Your task to perform on an android device: star an email in the gmail app Image 0: 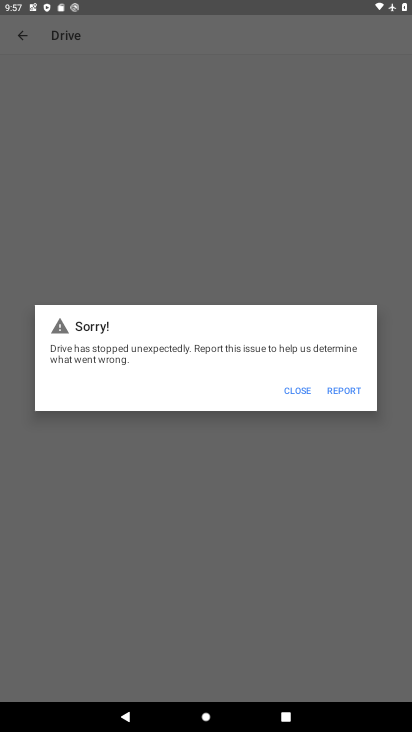
Step 0: press home button
Your task to perform on an android device: star an email in the gmail app Image 1: 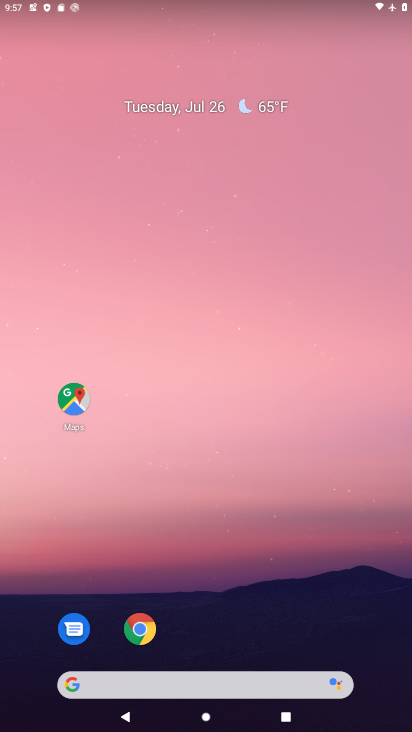
Step 1: drag from (309, 597) to (291, 58)
Your task to perform on an android device: star an email in the gmail app Image 2: 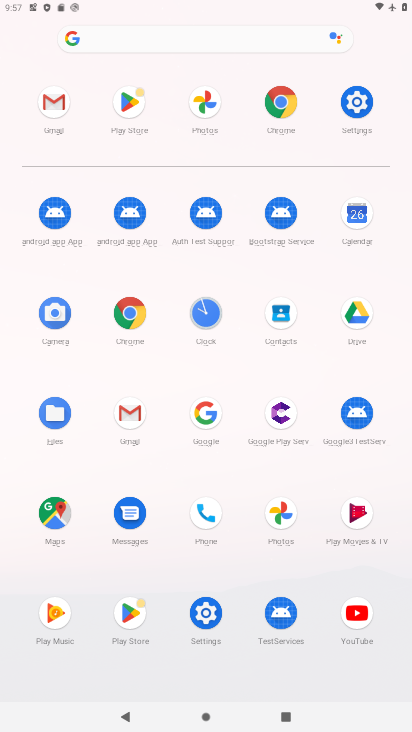
Step 2: click (47, 106)
Your task to perform on an android device: star an email in the gmail app Image 3: 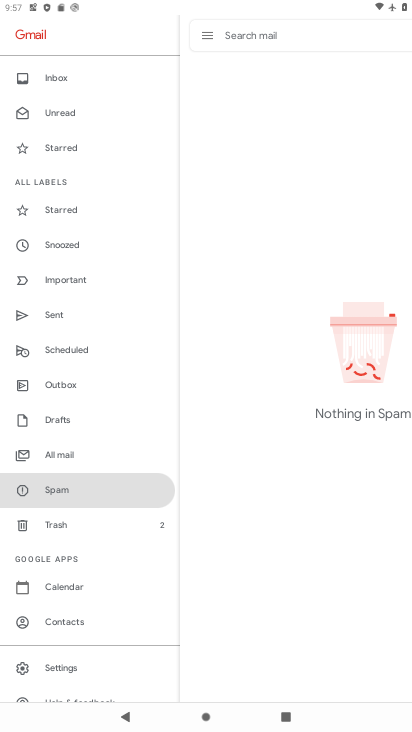
Step 3: click (84, 458)
Your task to perform on an android device: star an email in the gmail app Image 4: 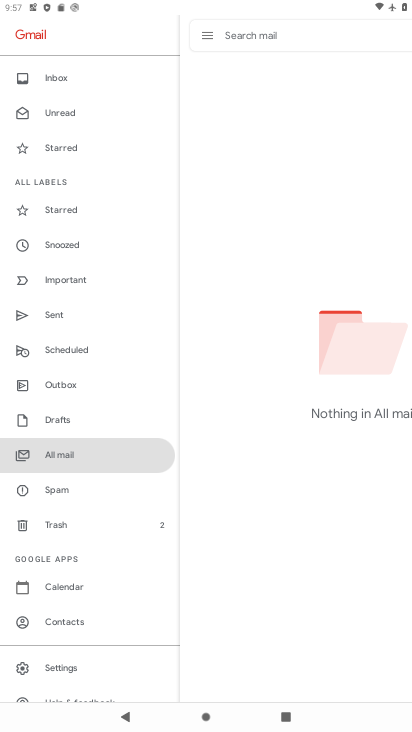
Step 4: task complete